Your task to perform on an android device: Open calendar and show me the fourth week of next month Image 0: 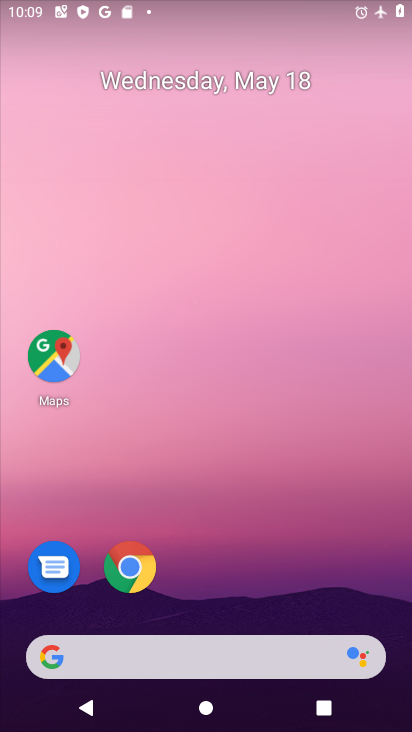
Step 0: drag from (213, 644) to (211, 126)
Your task to perform on an android device: Open calendar and show me the fourth week of next month Image 1: 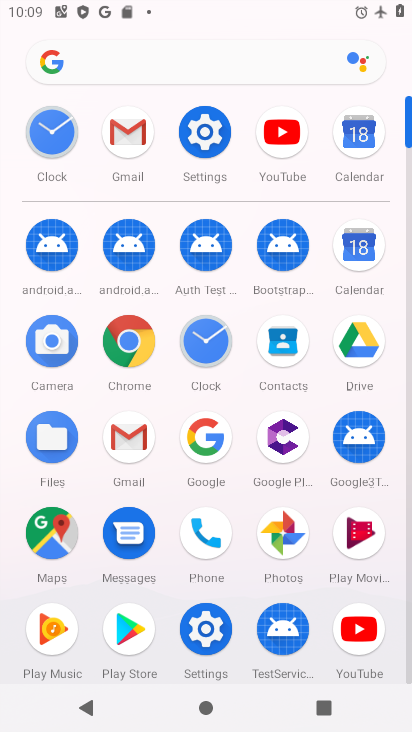
Step 1: click (336, 262)
Your task to perform on an android device: Open calendar and show me the fourth week of next month Image 2: 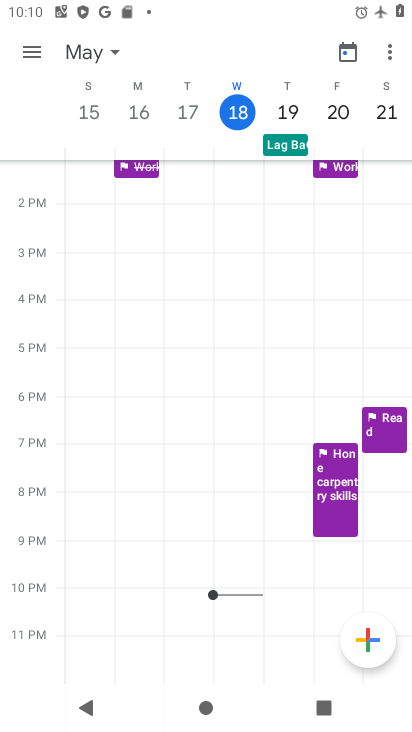
Step 2: click (27, 53)
Your task to perform on an android device: Open calendar and show me the fourth week of next month Image 3: 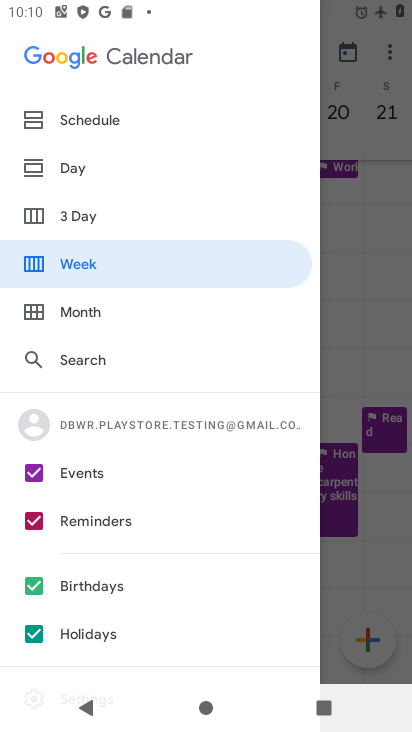
Step 3: click (86, 321)
Your task to perform on an android device: Open calendar and show me the fourth week of next month Image 4: 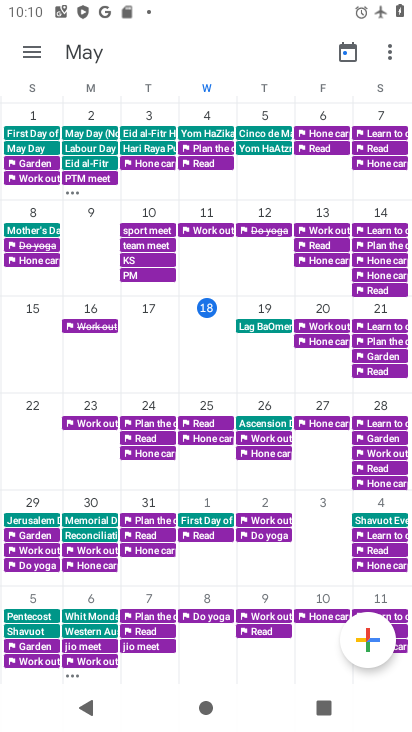
Step 4: task complete